Your task to perform on an android device: move a message to another label in the gmail app Image 0: 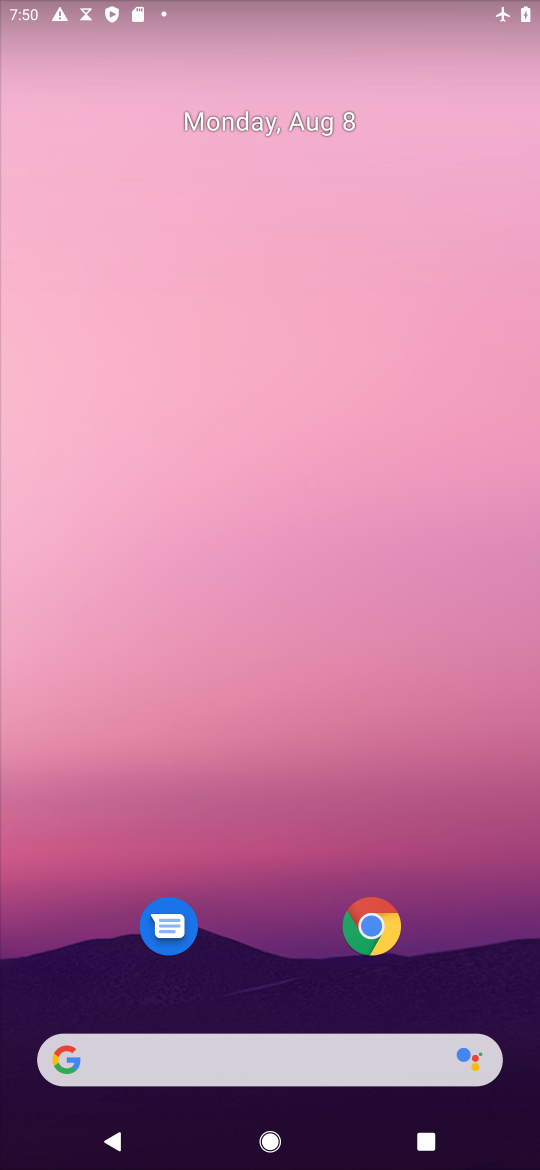
Step 0: drag from (270, 985) to (284, 489)
Your task to perform on an android device: move a message to another label in the gmail app Image 1: 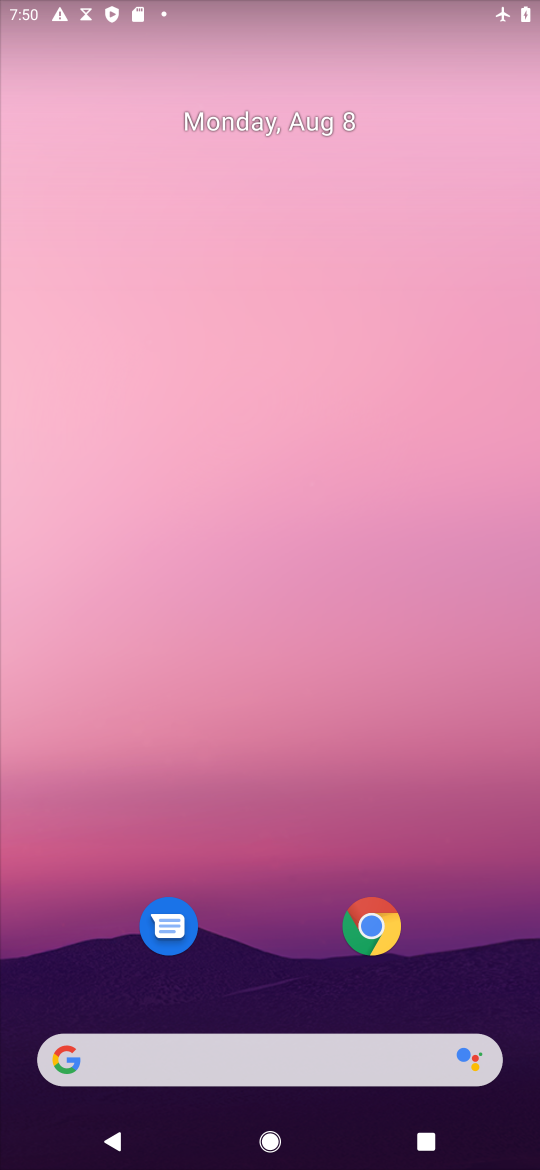
Step 1: drag from (223, 650) to (295, 137)
Your task to perform on an android device: move a message to another label in the gmail app Image 2: 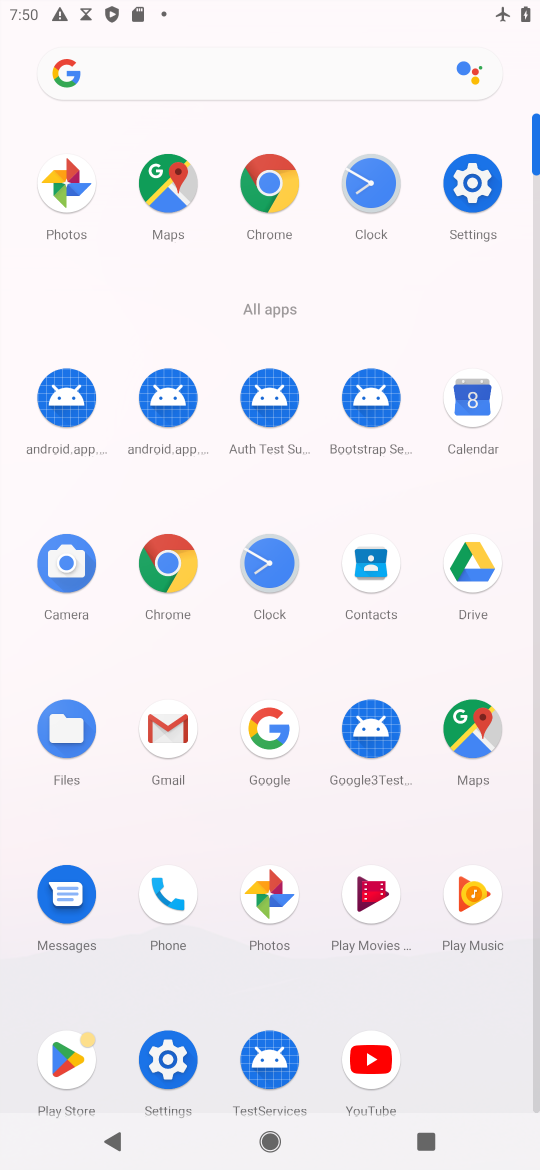
Step 2: click (175, 737)
Your task to perform on an android device: move a message to another label in the gmail app Image 3: 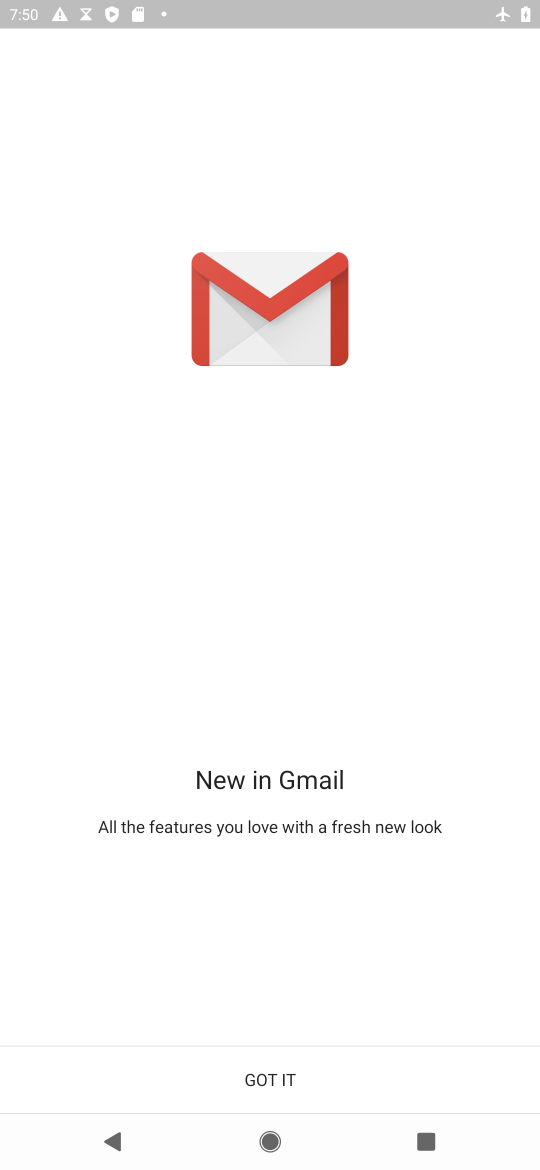
Step 3: click (268, 1096)
Your task to perform on an android device: move a message to another label in the gmail app Image 4: 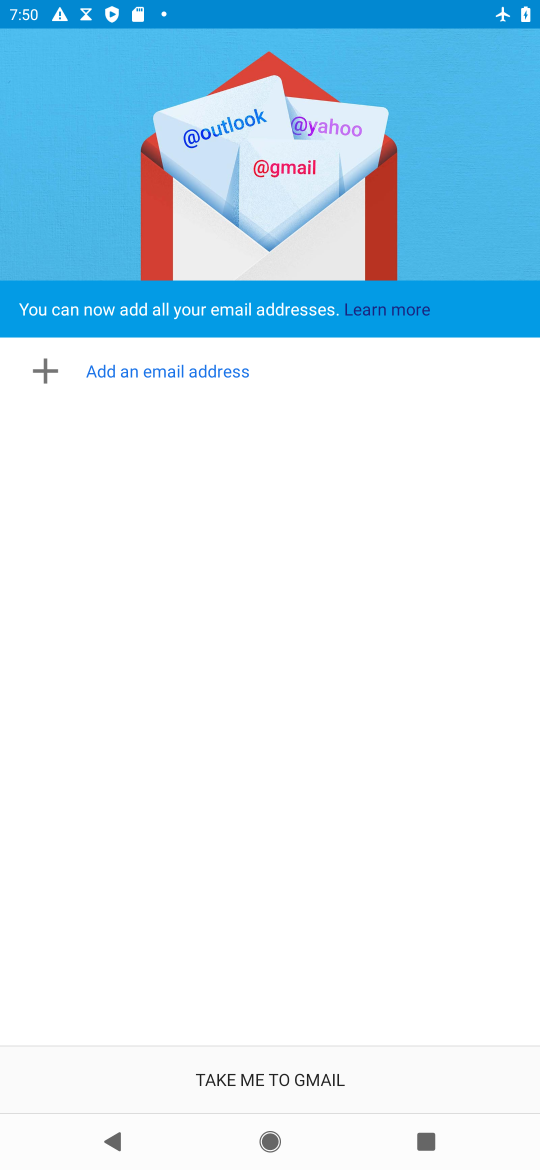
Step 4: drag from (293, 850) to (277, 995)
Your task to perform on an android device: move a message to another label in the gmail app Image 5: 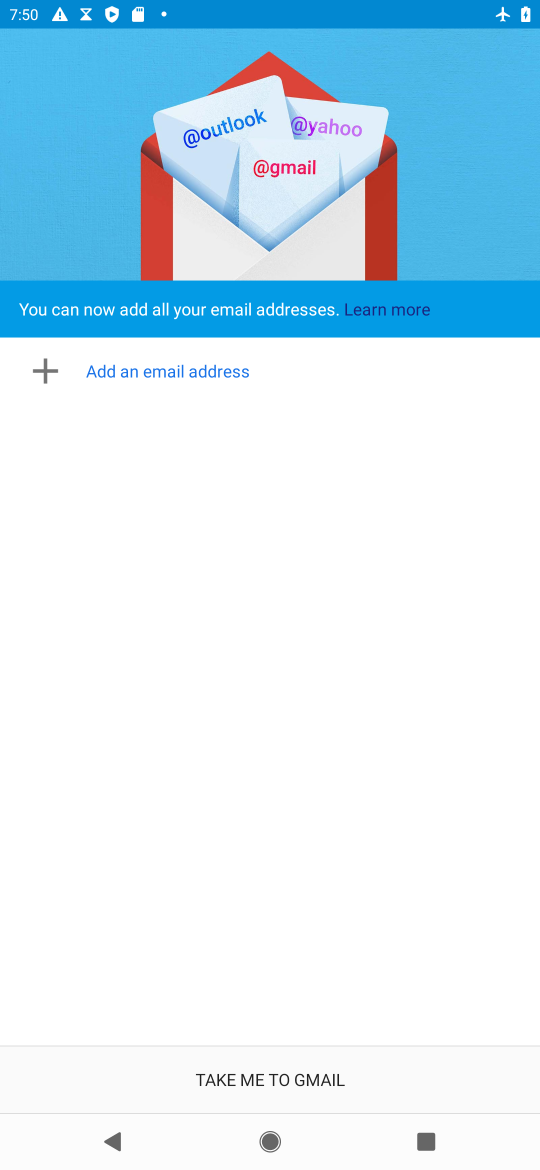
Step 5: click (275, 1067)
Your task to perform on an android device: move a message to another label in the gmail app Image 6: 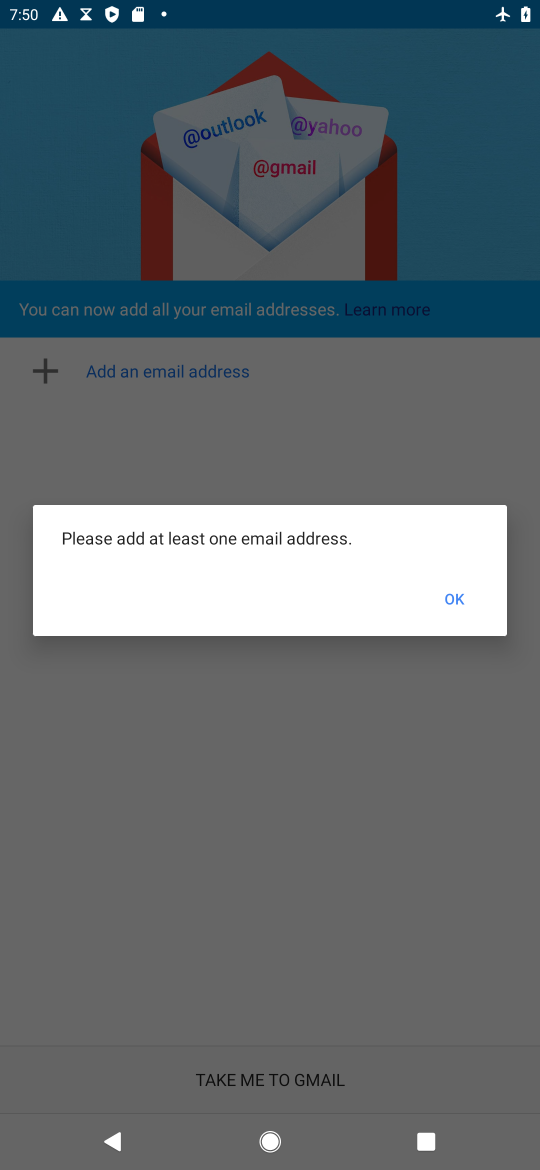
Step 6: task complete